Your task to perform on an android device: Search for sushi restaurants on Maps Image 0: 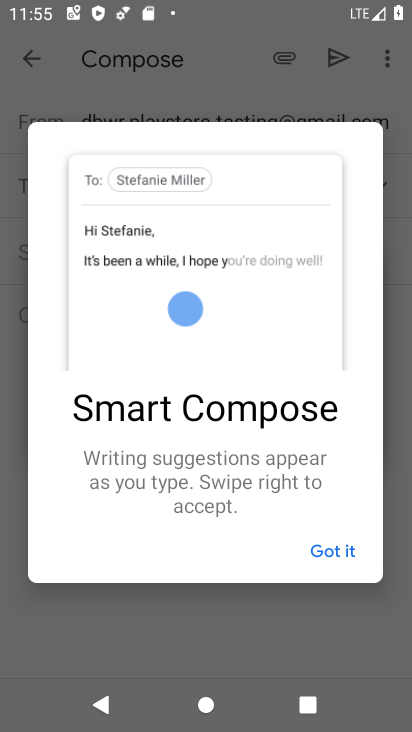
Step 0: press home button
Your task to perform on an android device: Search for sushi restaurants on Maps Image 1: 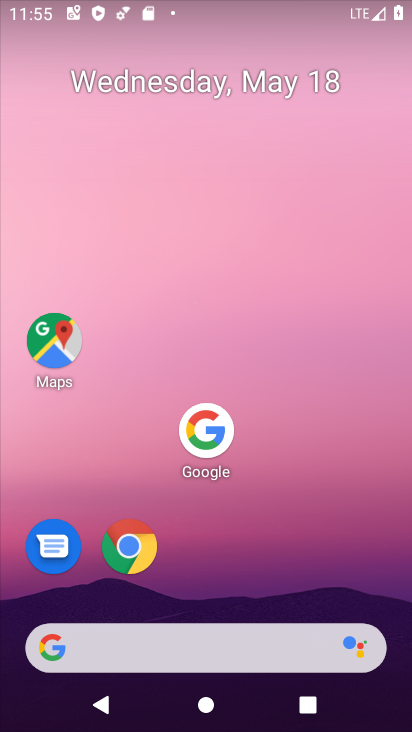
Step 1: click (53, 337)
Your task to perform on an android device: Search for sushi restaurants on Maps Image 2: 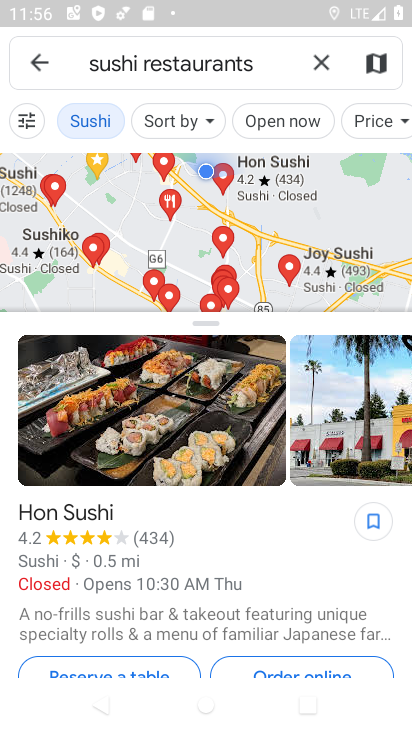
Step 2: task complete